Your task to perform on an android device: Go to sound settings Image 0: 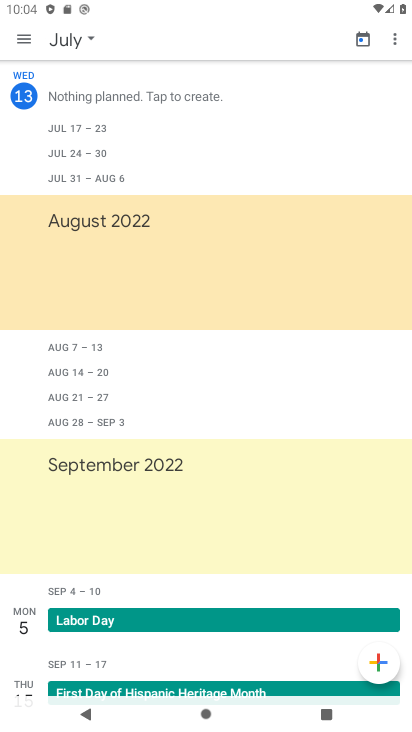
Step 0: press home button
Your task to perform on an android device: Go to sound settings Image 1: 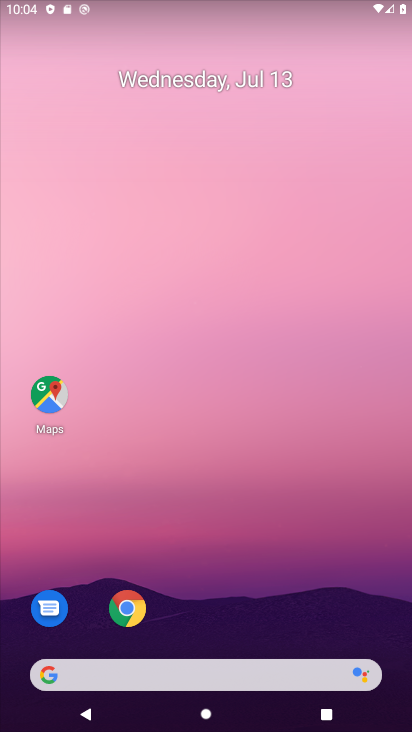
Step 1: drag from (260, 600) to (270, 76)
Your task to perform on an android device: Go to sound settings Image 2: 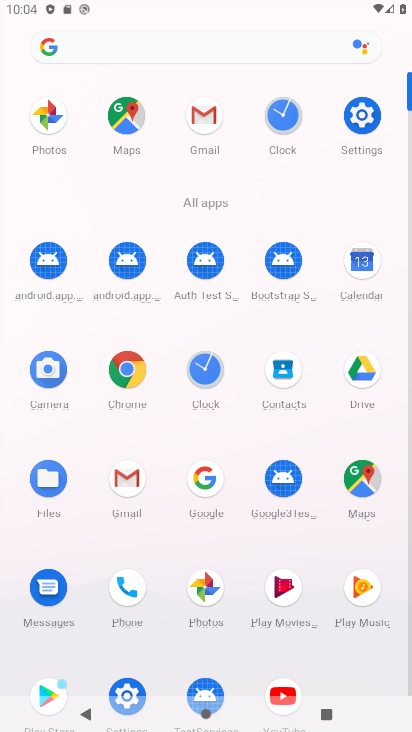
Step 2: click (366, 121)
Your task to perform on an android device: Go to sound settings Image 3: 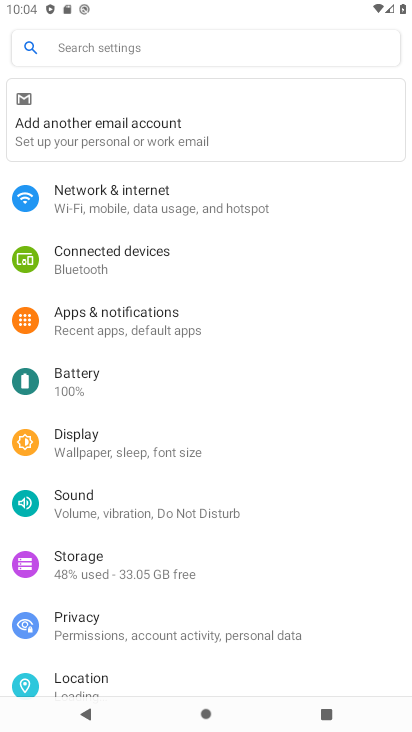
Step 3: click (85, 502)
Your task to perform on an android device: Go to sound settings Image 4: 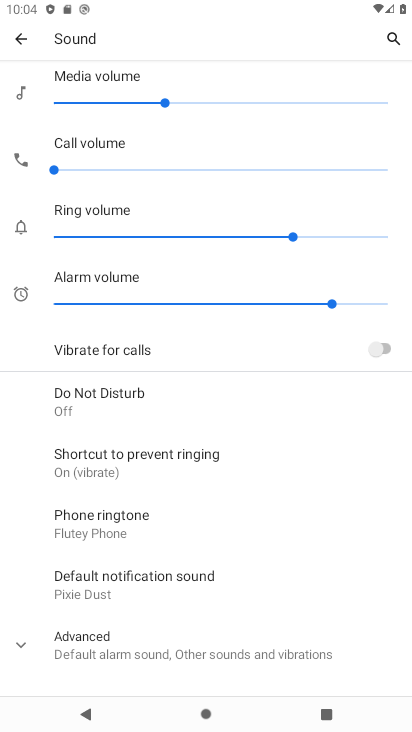
Step 4: task complete